Your task to perform on an android device: When is my next appointment? Image 0: 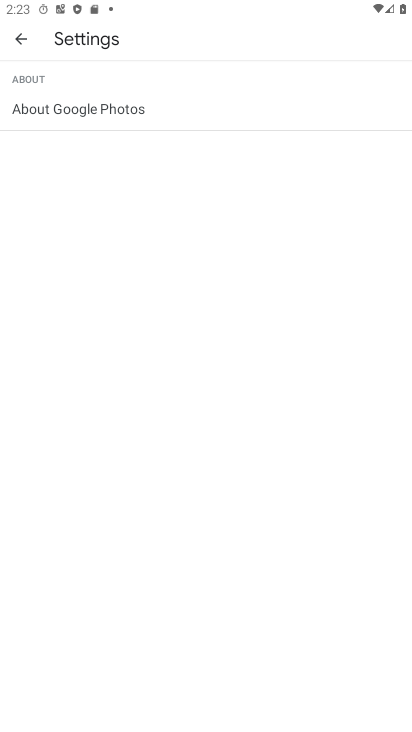
Step 0: press home button
Your task to perform on an android device: When is my next appointment? Image 1: 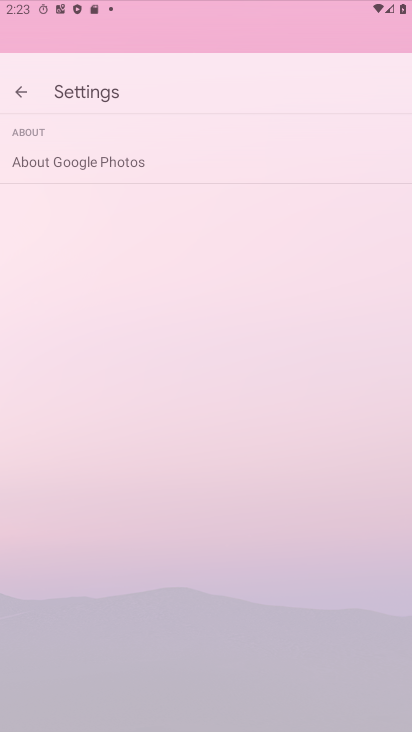
Step 1: drag from (389, 690) to (250, 51)
Your task to perform on an android device: When is my next appointment? Image 2: 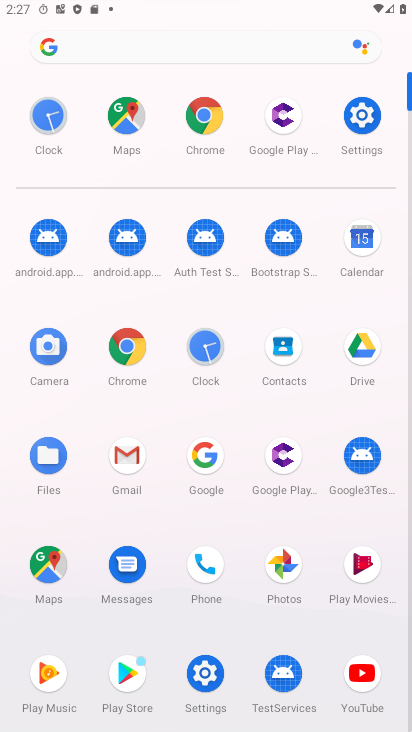
Step 2: click (377, 245)
Your task to perform on an android device: When is my next appointment? Image 3: 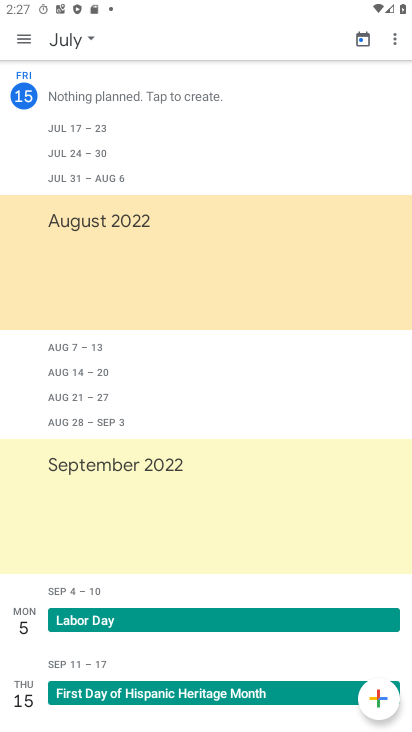
Step 3: task complete